Your task to perform on an android device: Go to Reddit.com Image 0: 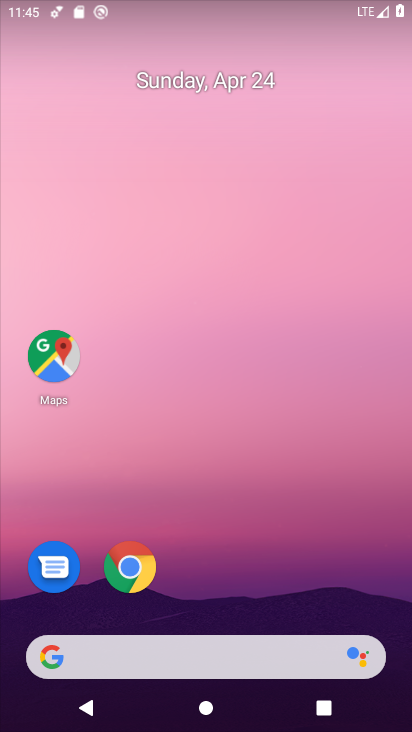
Step 0: click (132, 588)
Your task to perform on an android device: Go to Reddit.com Image 1: 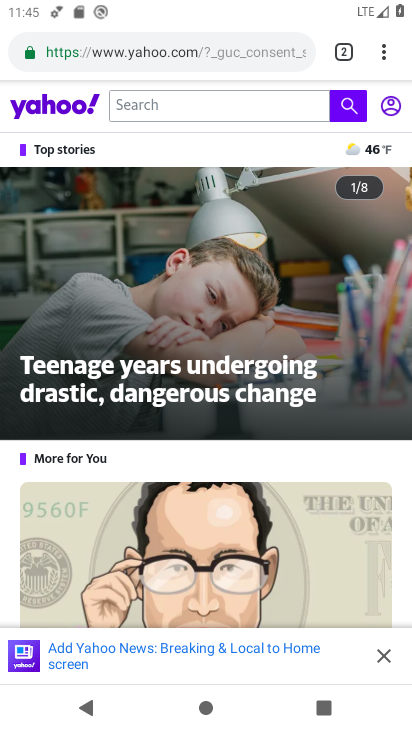
Step 1: click (120, 42)
Your task to perform on an android device: Go to Reddit.com Image 2: 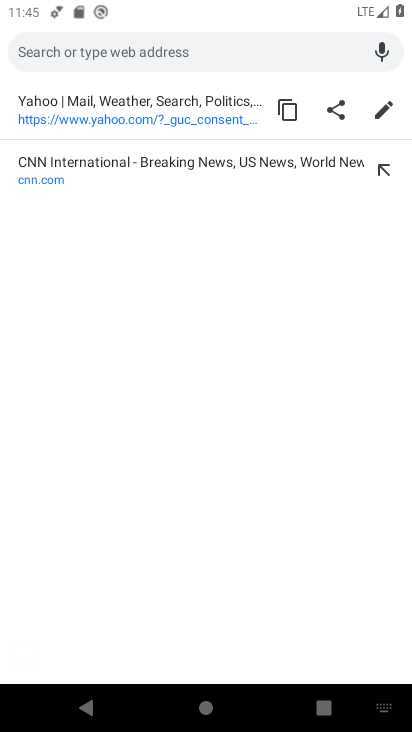
Step 2: type "reddit.com"
Your task to perform on an android device: Go to Reddit.com Image 3: 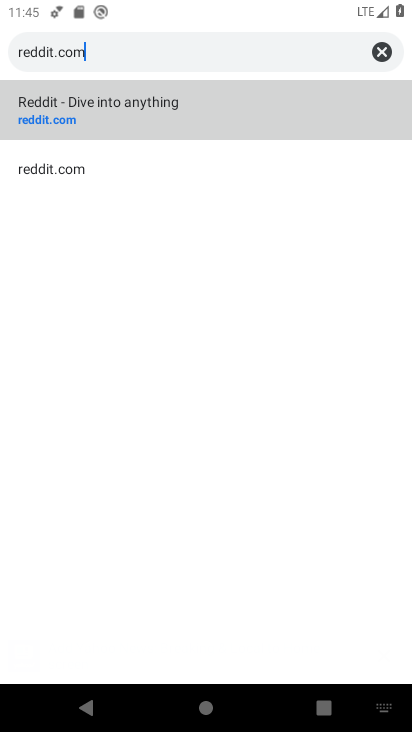
Step 3: click (182, 127)
Your task to perform on an android device: Go to Reddit.com Image 4: 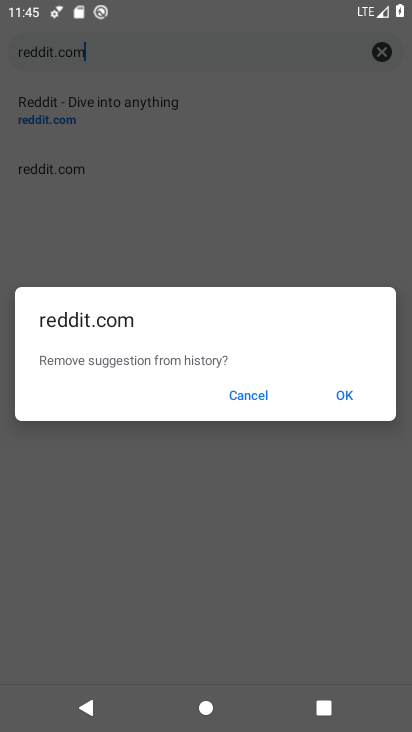
Step 4: click (210, 221)
Your task to perform on an android device: Go to Reddit.com Image 5: 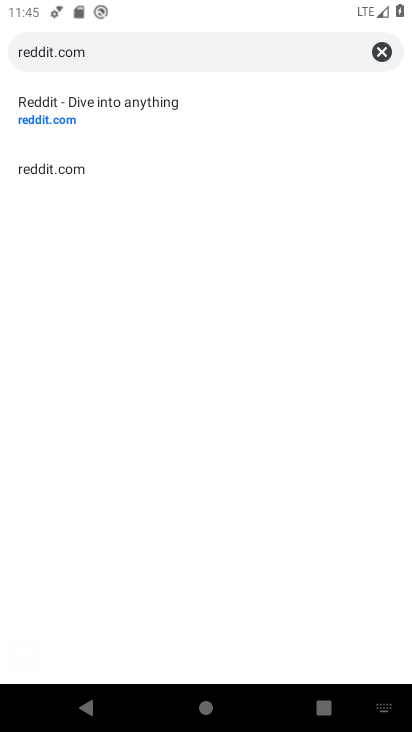
Step 5: click (200, 115)
Your task to perform on an android device: Go to Reddit.com Image 6: 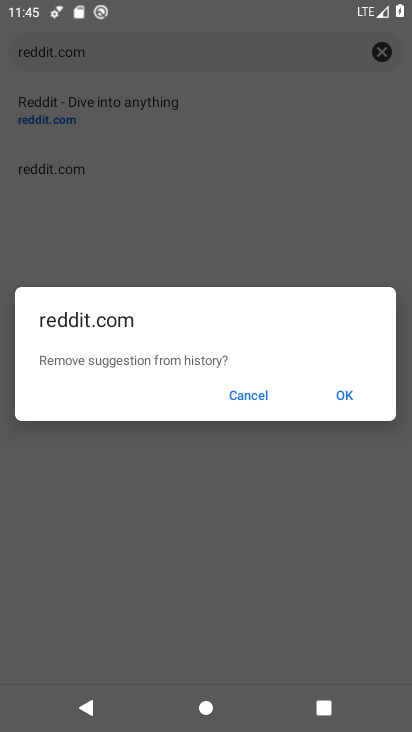
Step 6: click (244, 388)
Your task to perform on an android device: Go to Reddit.com Image 7: 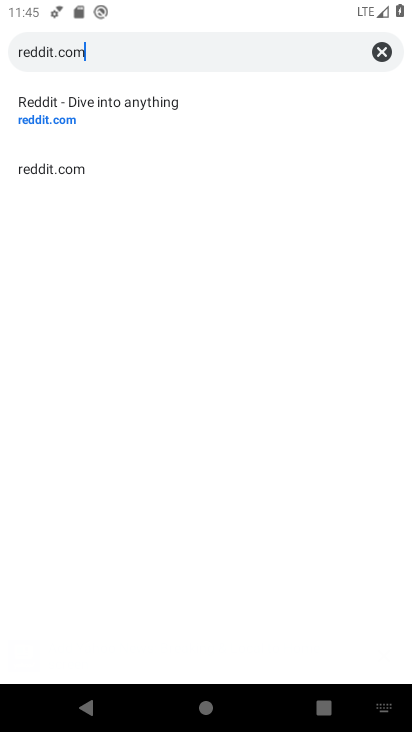
Step 7: task complete